Your task to perform on an android device: Show me productivity apps on the Play Store Image 0: 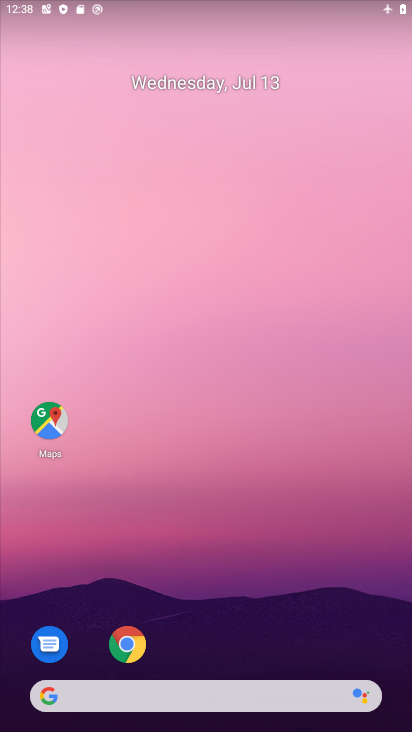
Step 0: drag from (321, 620) to (313, 67)
Your task to perform on an android device: Show me productivity apps on the Play Store Image 1: 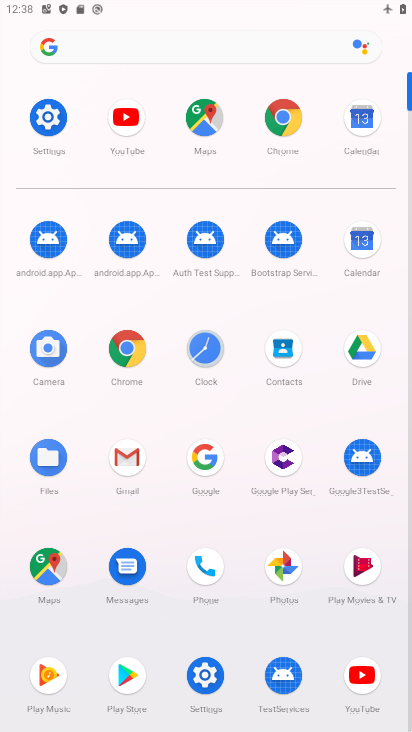
Step 1: click (137, 674)
Your task to perform on an android device: Show me productivity apps on the Play Store Image 2: 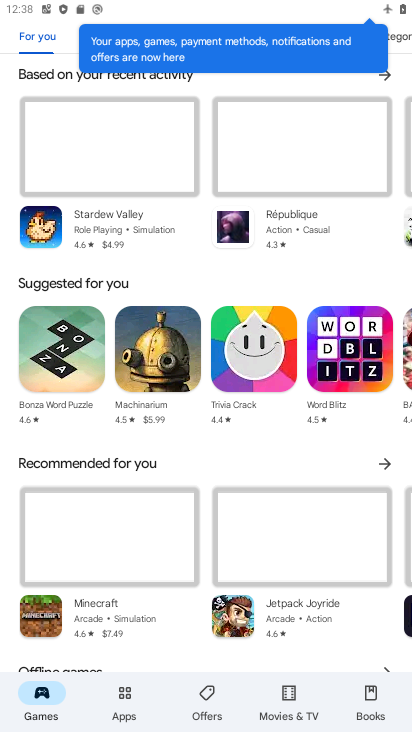
Step 2: click (120, 710)
Your task to perform on an android device: Show me productivity apps on the Play Store Image 3: 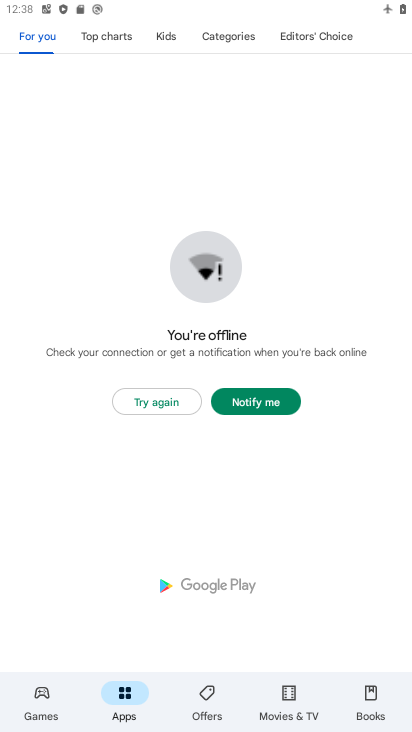
Step 3: task complete